Your task to perform on an android device: Open Google Maps and go to "Timeline" Image 0: 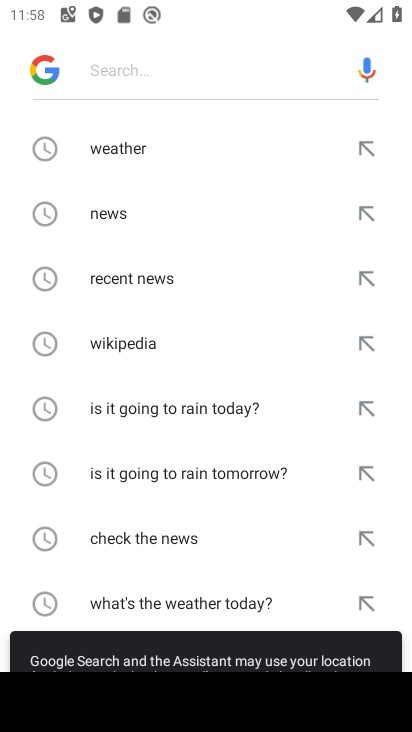
Step 0: press home button
Your task to perform on an android device: Open Google Maps and go to "Timeline" Image 1: 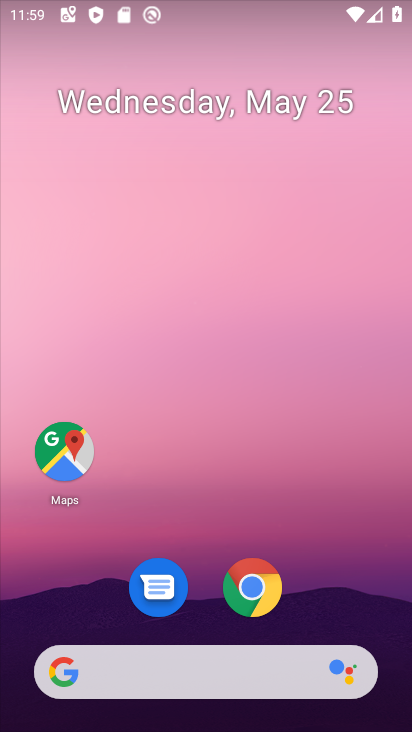
Step 1: click (63, 447)
Your task to perform on an android device: Open Google Maps and go to "Timeline" Image 2: 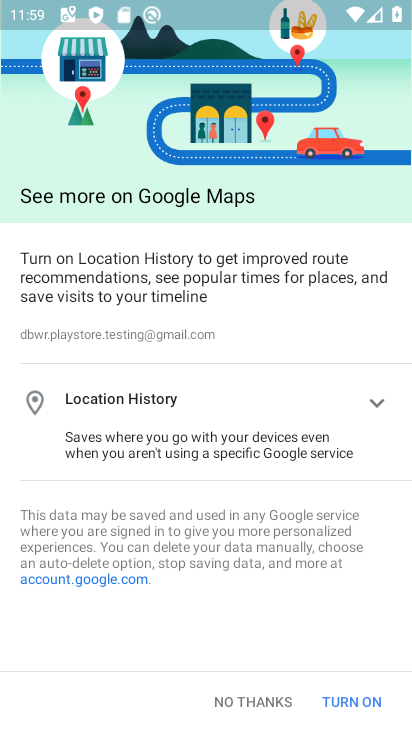
Step 2: click (253, 697)
Your task to perform on an android device: Open Google Maps and go to "Timeline" Image 3: 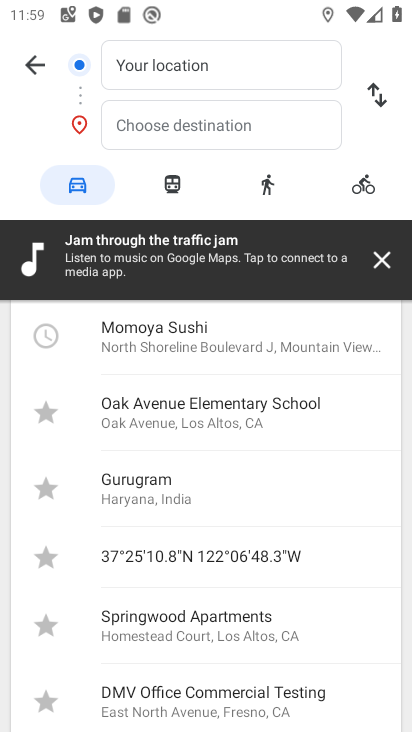
Step 3: click (381, 260)
Your task to perform on an android device: Open Google Maps and go to "Timeline" Image 4: 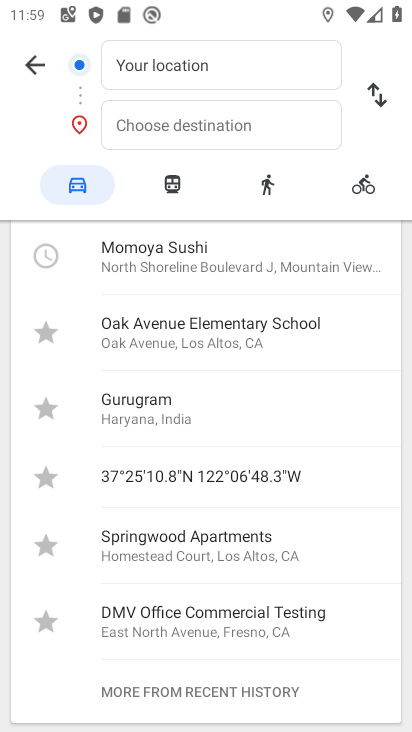
Step 4: drag from (206, 653) to (223, 231)
Your task to perform on an android device: Open Google Maps and go to "Timeline" Image 5: 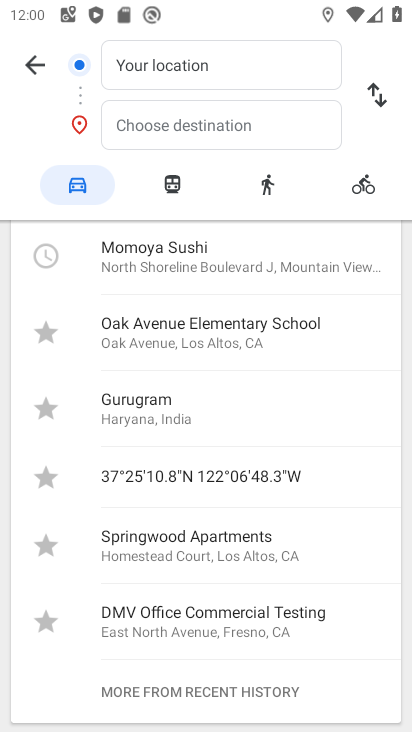
Step 5: click (34, 63)
Your task to perform on an android device: Open Google Maps and go to "Timeline" Image 6: 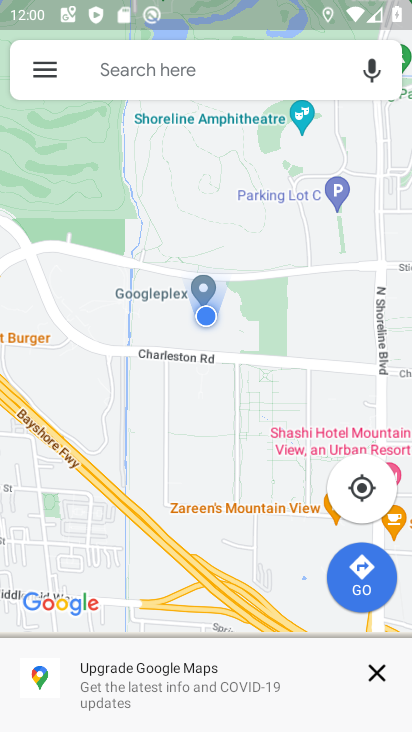
Step 6: click (49, 70)
Your task to perform on an android device: Open Google Maps and go to "Timeline" Image 7: 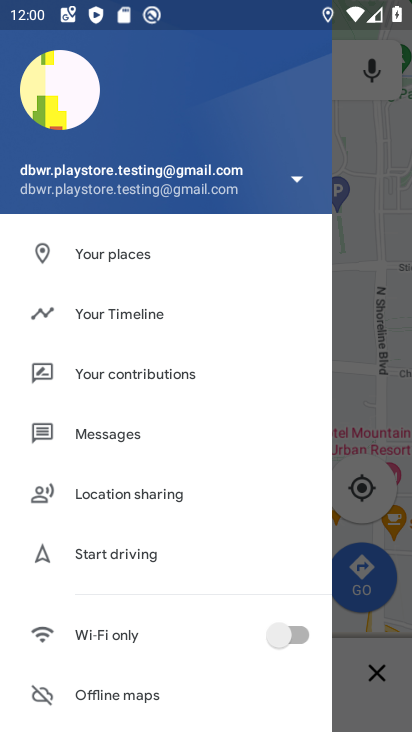
Step 7: click (176, 313)
Your task to perform on an android device: Open Google Maps and go to "Timeline" Image 8: 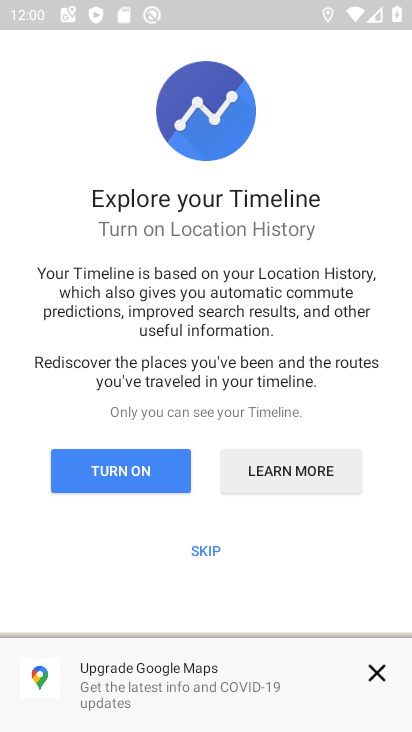
Step 8: click (130, 467)
Your task to perform on an android device: Open Google Maps and go to "Timeline" Image 9: 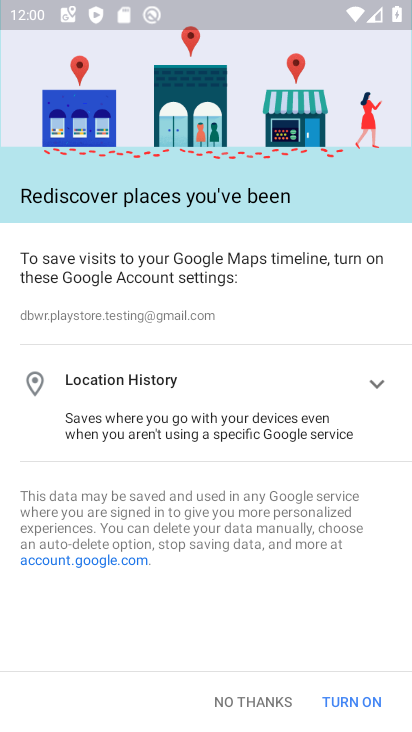
Step 9: click (364, 701)
Your task to perform on an android device: Open Google Maps and go to "Timeline" Image 10: 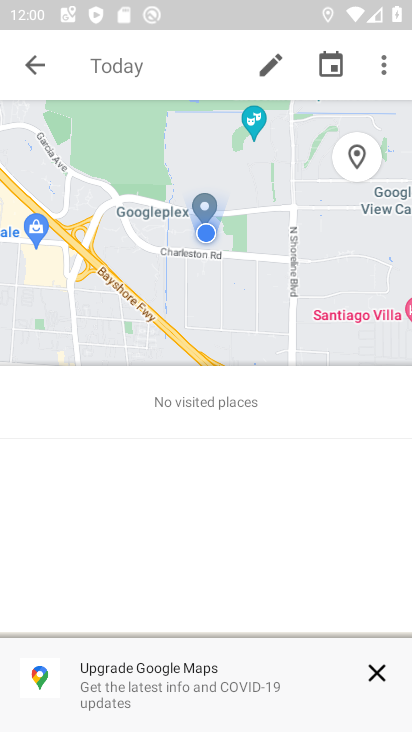
Step 10: task complete